Your task to perform on an android device: turn off data saver in the chrome app Image 0: 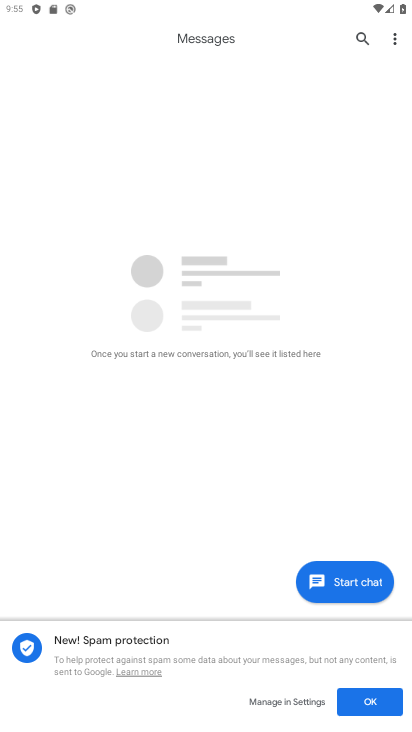
Step 0: press home button
Your task to perform on an android device: turn off data saver in the chrome app Image 1: 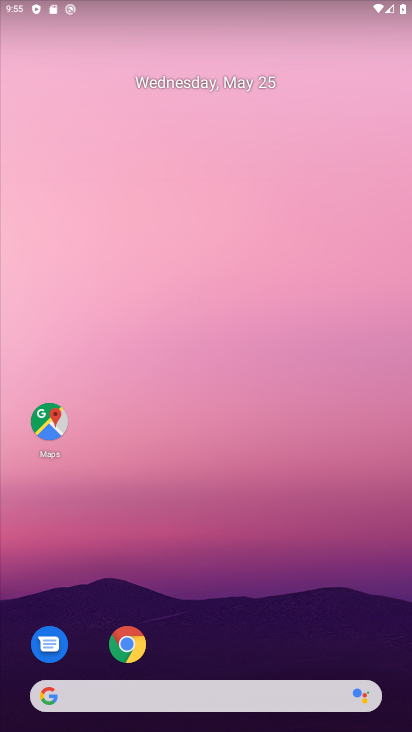
Step 1: click (124, 640)
Your task to perform on an android device: turn off data saver in the chrome app Image 2: 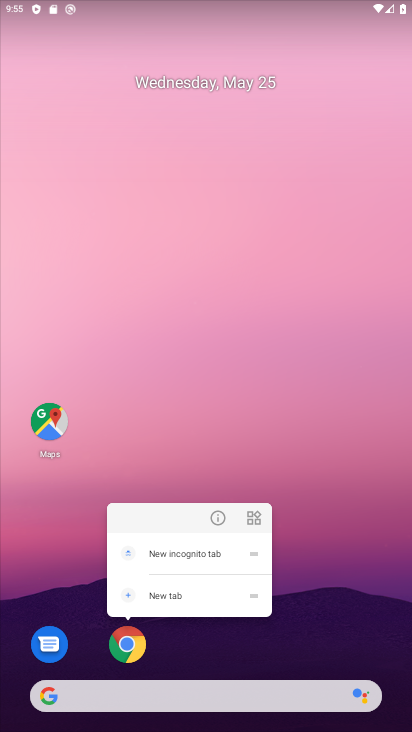
Step 2: click (124, 640)
Your task to perform on an android device: turn off data saver in the chrome app Image 3: 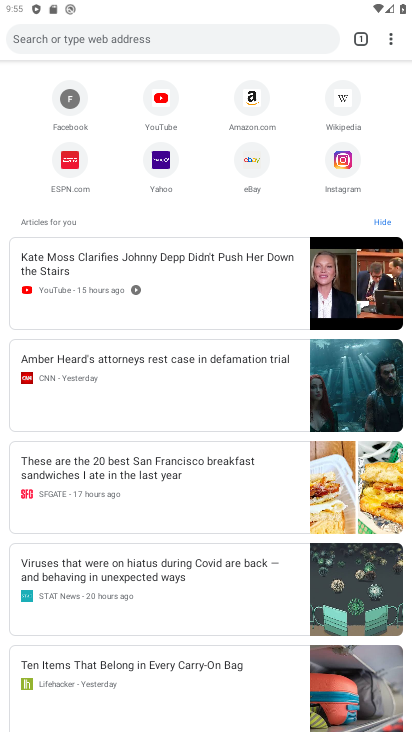
Step 3: click (389, 41)
Your task to perform on an android device: turn off data saver in the chrome app Image 4: 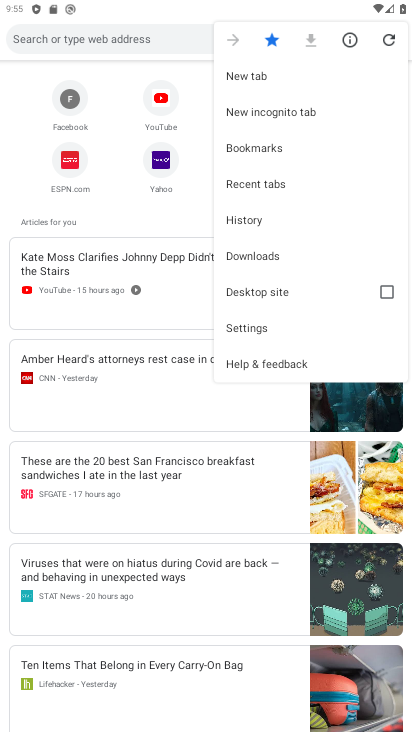
Step 4: click (258, 332)
Your task to perform on an android device: turn off data saver in the chrome app Image 5: 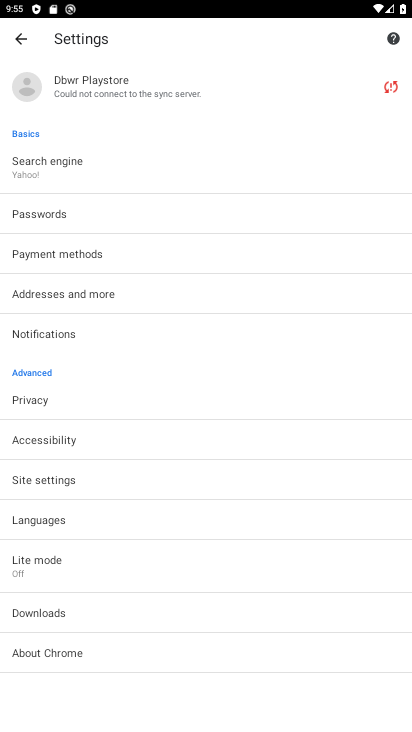
Step 5: click (80, 566)
Your task to perform on an android device: turn off data saver in the chrome app Image 6: 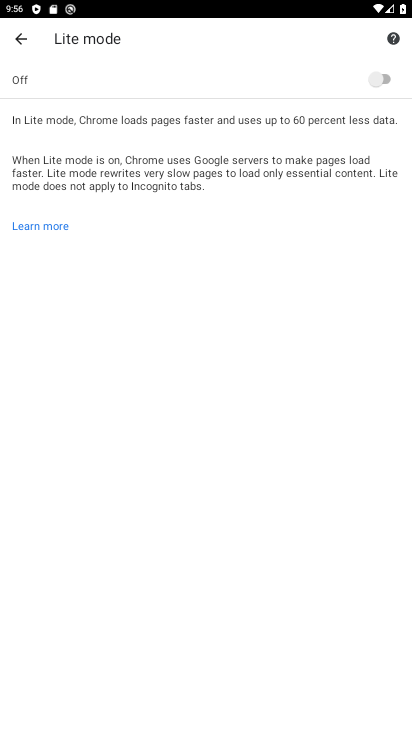
Step 6: task complete